Your task to perform on an android device: turn vacation reply on in the gmail app Image 0: 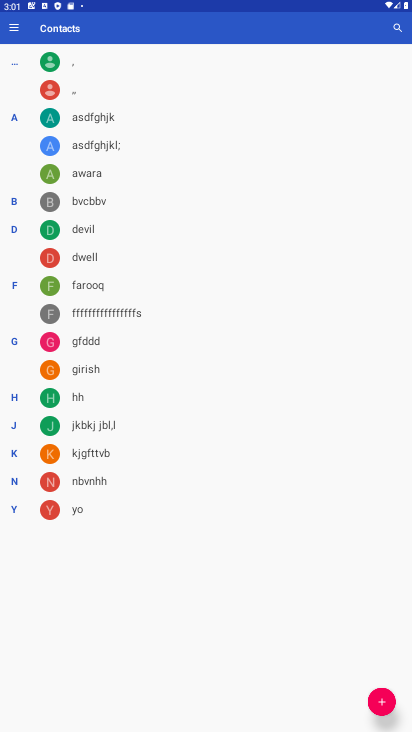
Step 0: press home button
Your task to perform on an android device: turn vacation reply on in the gmail app Image 1: 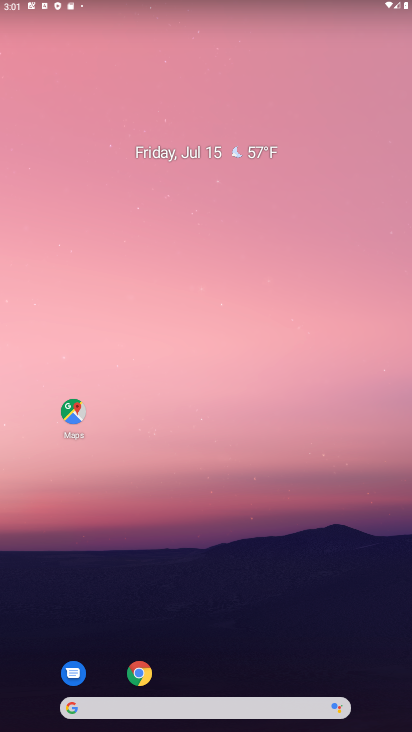
Step 1: drag from (370, 649) to (343, 349)
Your task to perform on an android device: turn vacation reply on in the gmail app Image 2: 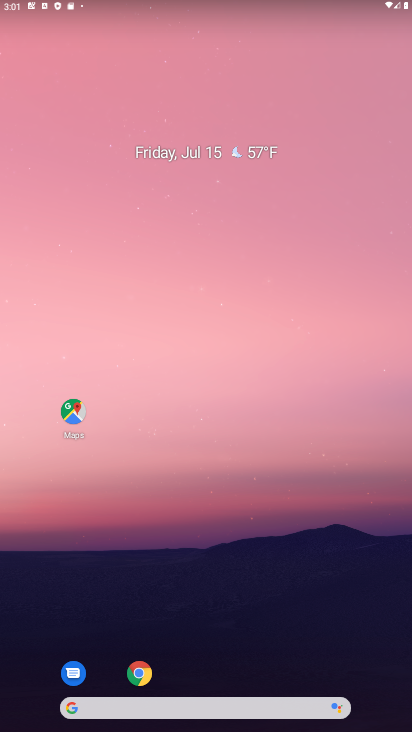
Step 2: drag from (357, 629) to (327, 232)
Your task to perform on an android device: turn vacation reply on in the gmail app Image 3: 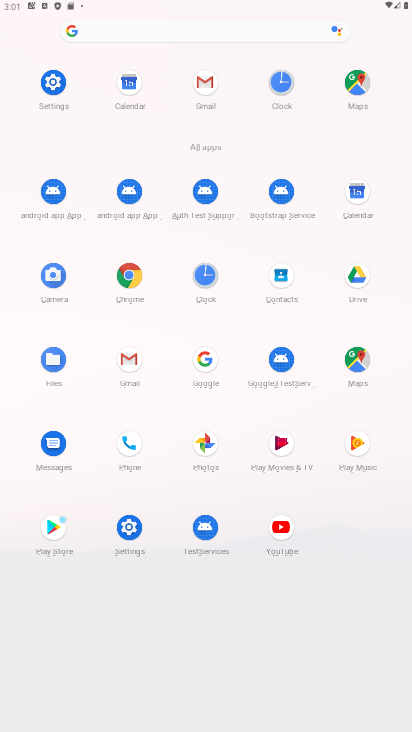
Step 3: click (135, 363)
Your task to perform on an android device: turn vacation reply on in the gmail app Image 4: 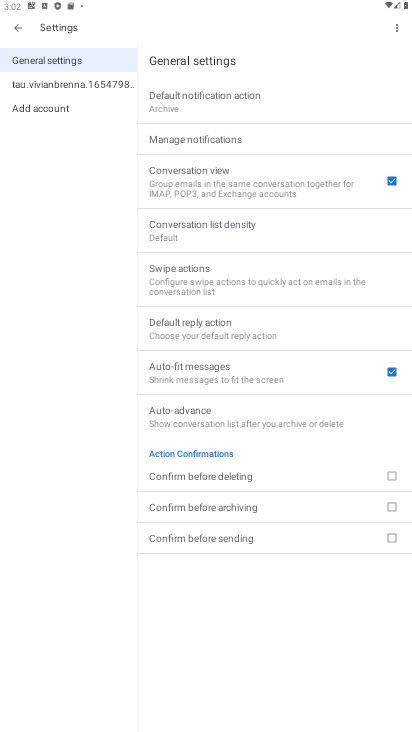
Step 4: click (79, 83)
Your task to perform on an android device: turn vacation reply on in the gmail app Image 5: 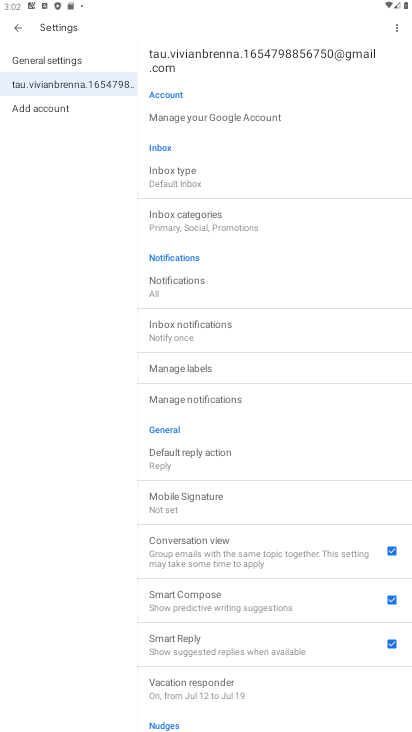
Step 5: drag from (274, 658) to (286, 302)
Your task to perform on an android device: turn vacation reply on in the gmail app Image 6: 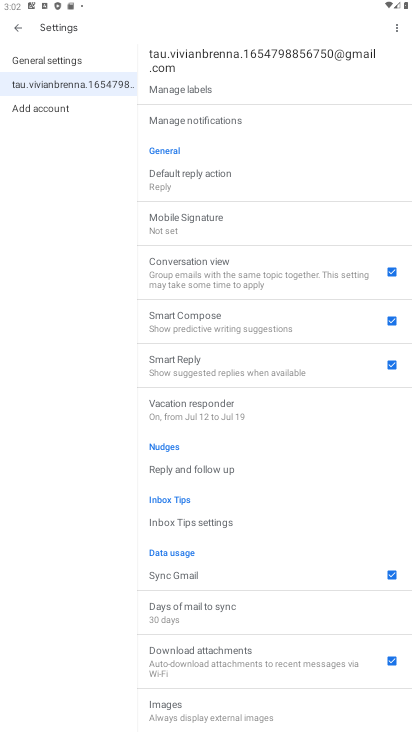
Step 6: click (234, 407)
Your task to perform on an android device: turn vacation reply on in the gmail app Image 7: 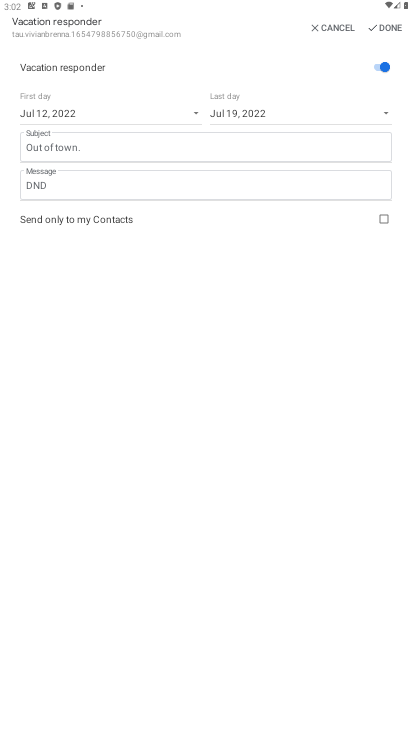
Step 7: click (384, 29)
Your task to perform on an android device: turn vacation reply on in the gmail app Image 8: 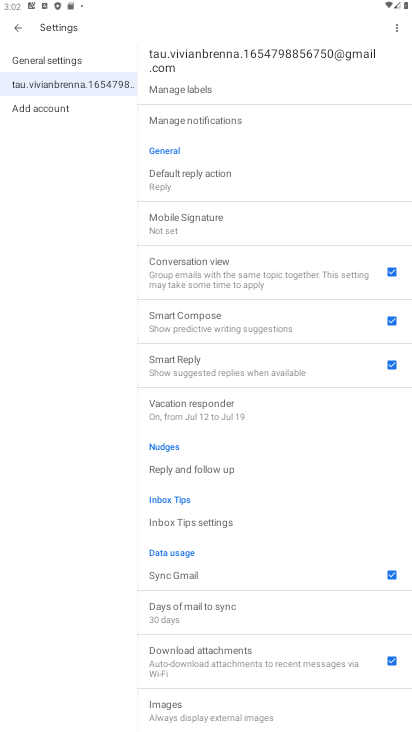
Step 8: task complete